Your task to perform on an android device: What is the recent news? Image 0: 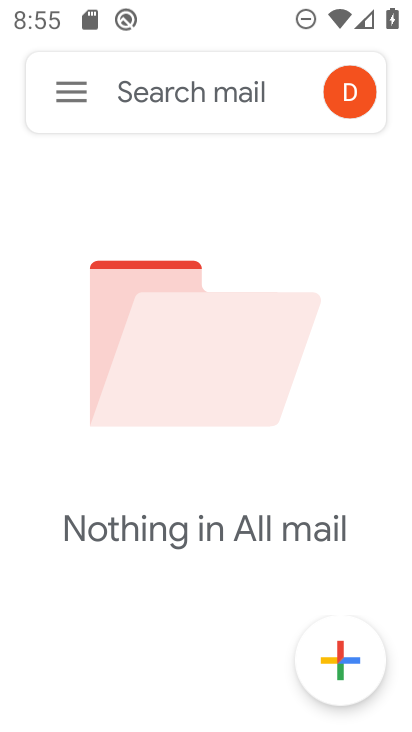
Step 0: press home button
Your task to perform on an android device: What is the recent news? Image 1: 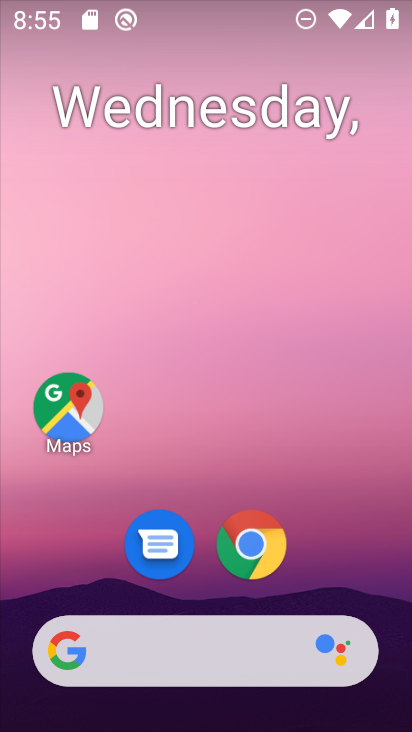
Step 1: drag from (354, 555) to (369, 197)
Your task to perform on an android device: What is the recent news? Image 2: 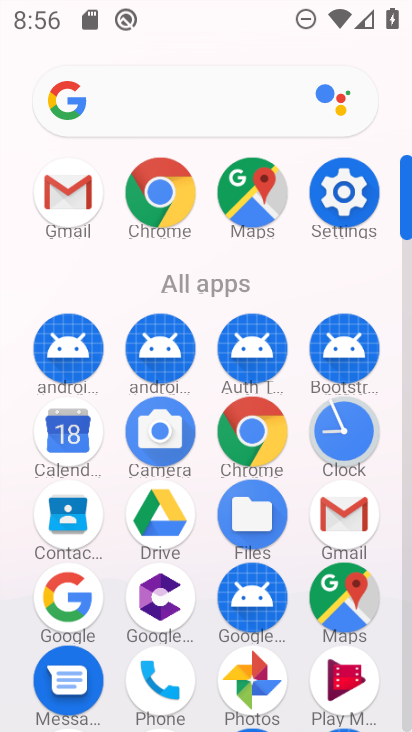
Step 2: click (156, 189)
Your task to perform on an android device: What is the recent news? Image 3: 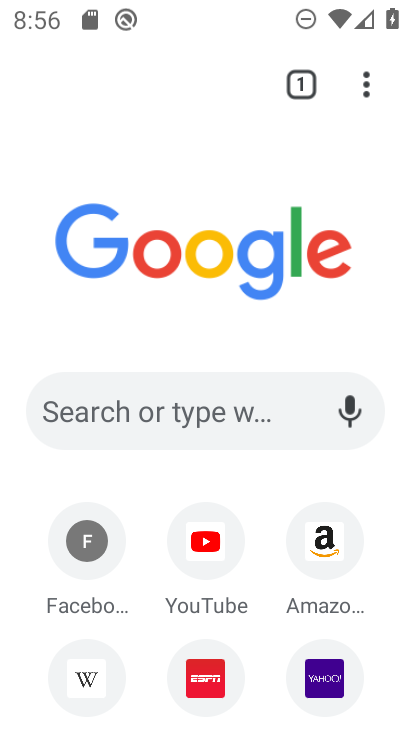
Step 3: click (189, 407)
Your task to perform on an android device: What is the recent news? Image 4: 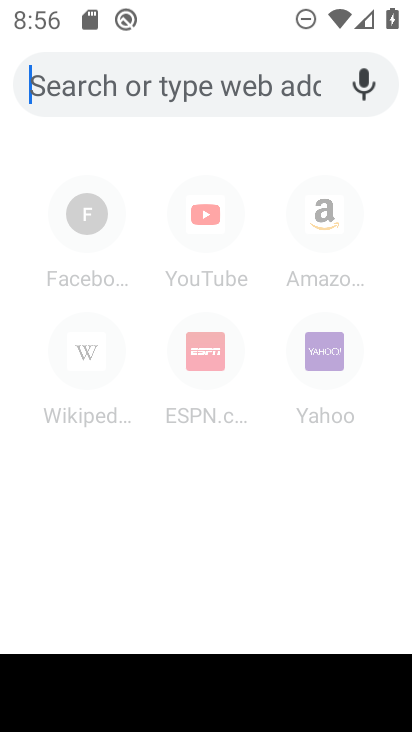
Step 4: type "news"
Your task to perform on an android device: What is the recent news? Image 5: 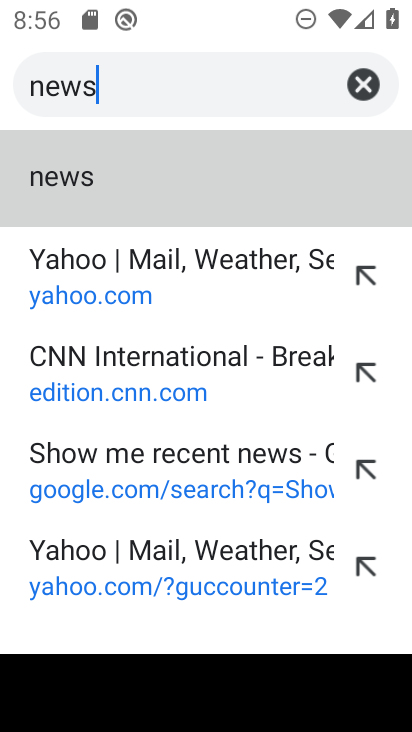
Step 5: click (89, 176)
Your task to perform on an android device: What is the recent news? Image 6: 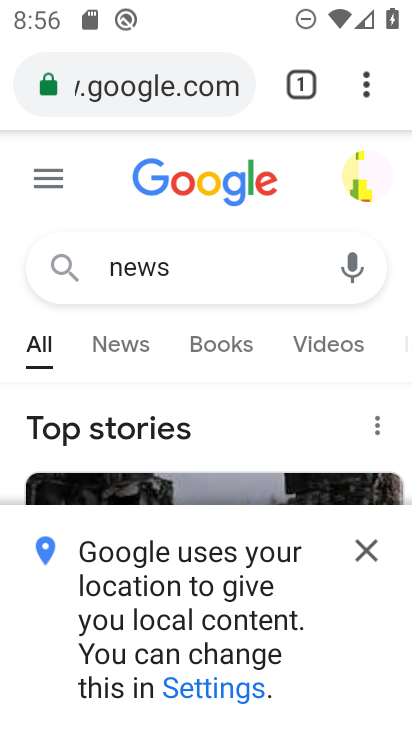
Step 6: click (129, 340)
Your task to perform on an android device: What is the recent news? Image 7: 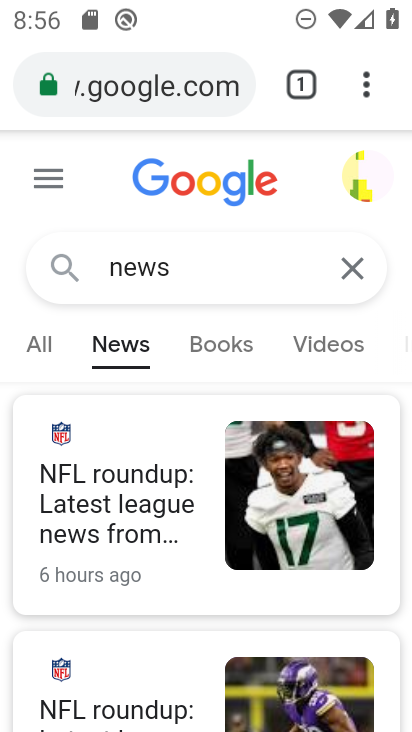
Step 7: task complete